Your task to perform on an android device: turn off sleep mode Image 0: 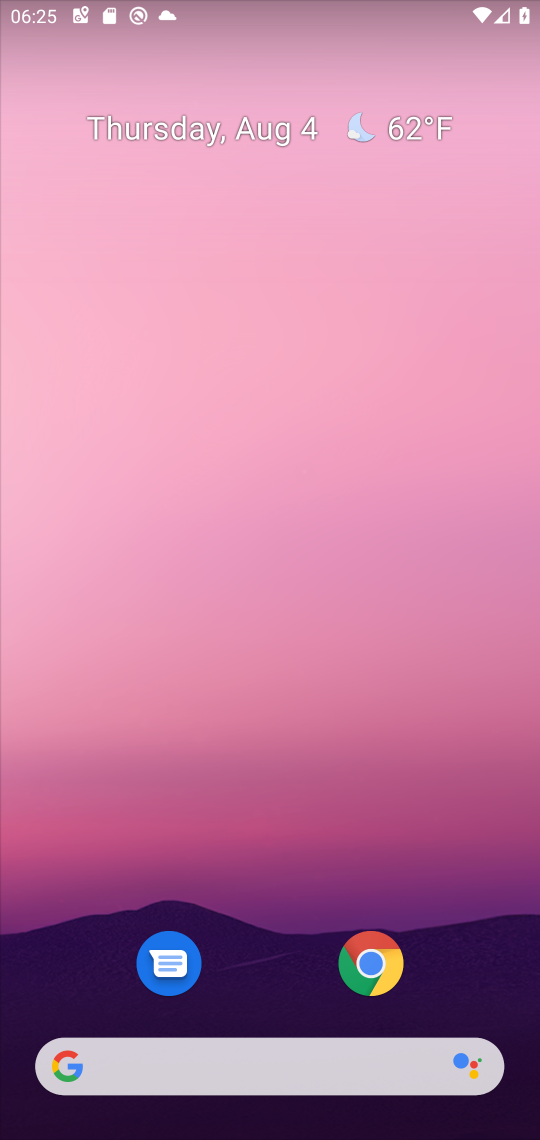
Step 0: drag from (297, 849) to (258, 96)
Your task to perform on an android device: turn off sleep mode Image 1: 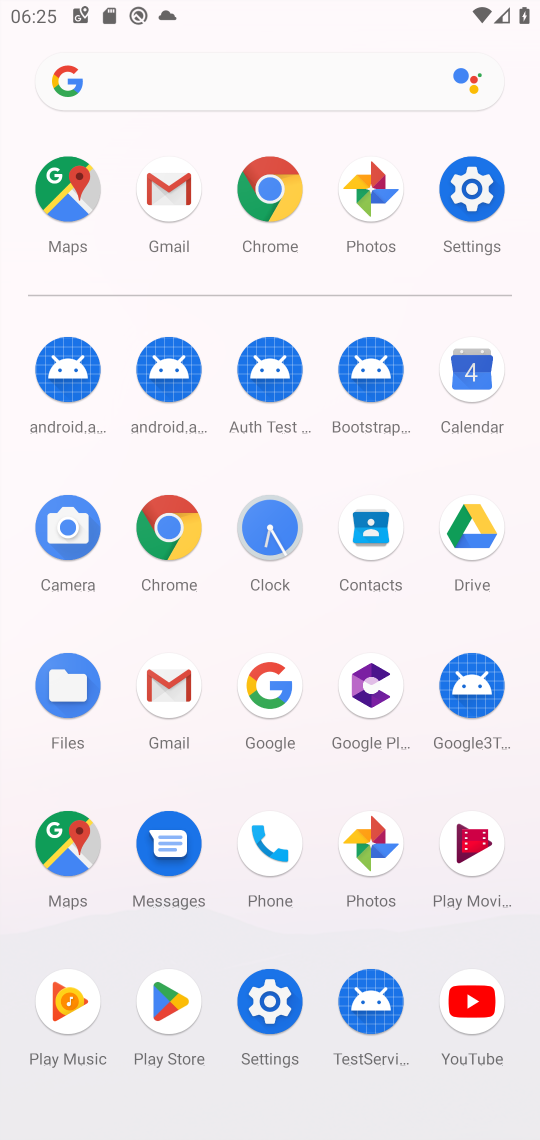
Step 1: click (473, 187)
Your task to perform on an android device: turn off sleep mode Image 2: 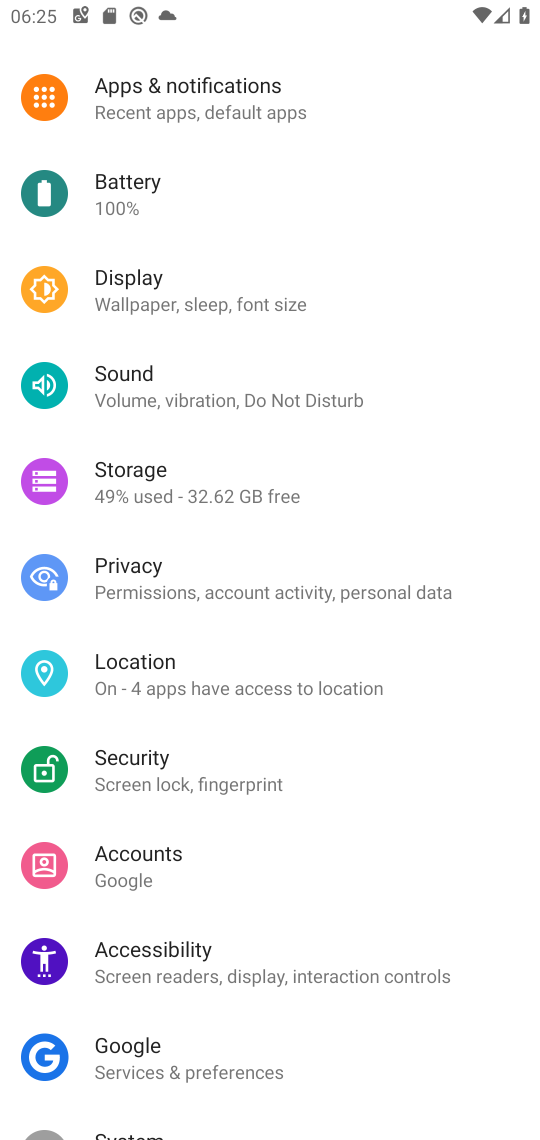
Step 2: click (146, 289)
Your task to perform on an android device: turn off sleep mode Image 3: 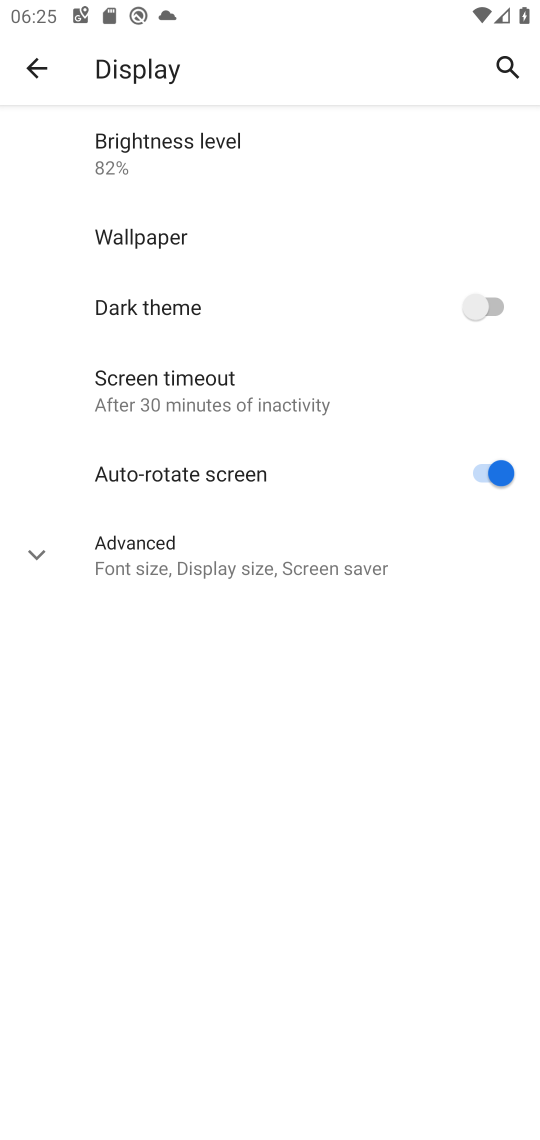
Step 3: task complete